Your task to perform on an android device: Find coffee shops on Maps Image 0: 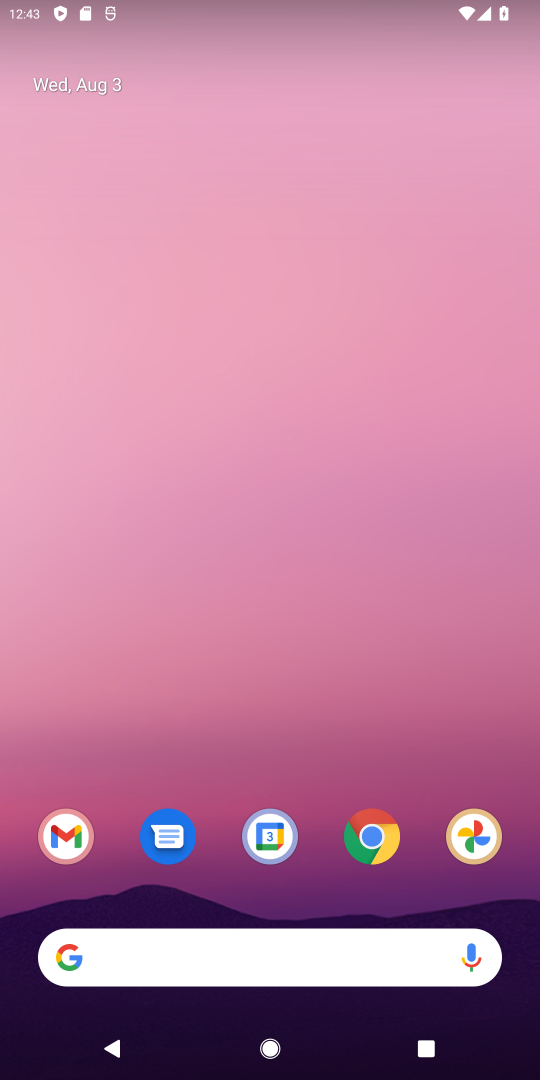
Step 0: drag from (217, 874) to (314, 226)
Your task to perform on an android device: Find coffee shops on Maps Image 1: 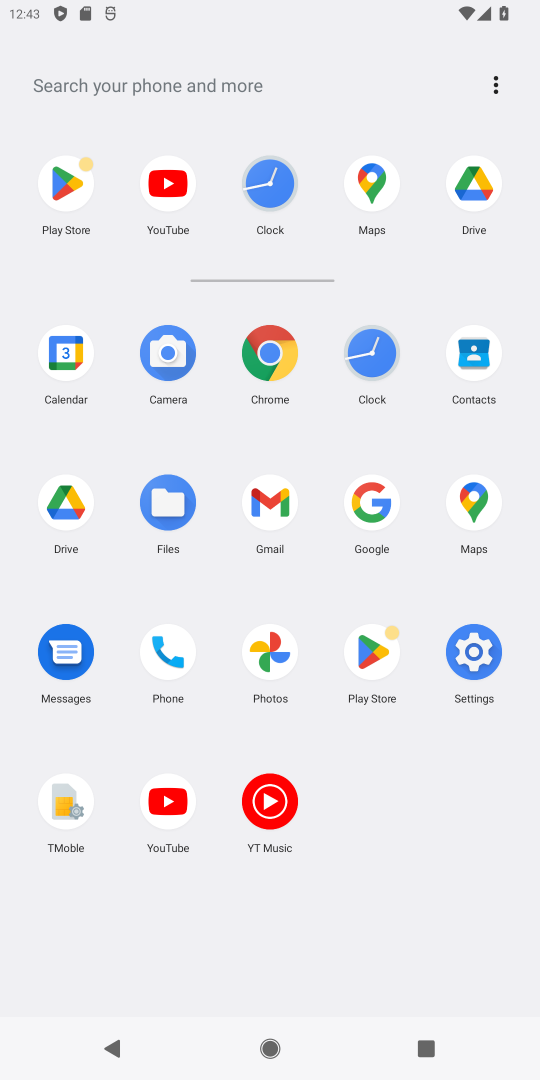
Step 1: click (468, 501)
Your task to perform on an android device: Find coffee shops on Maps Image 2: 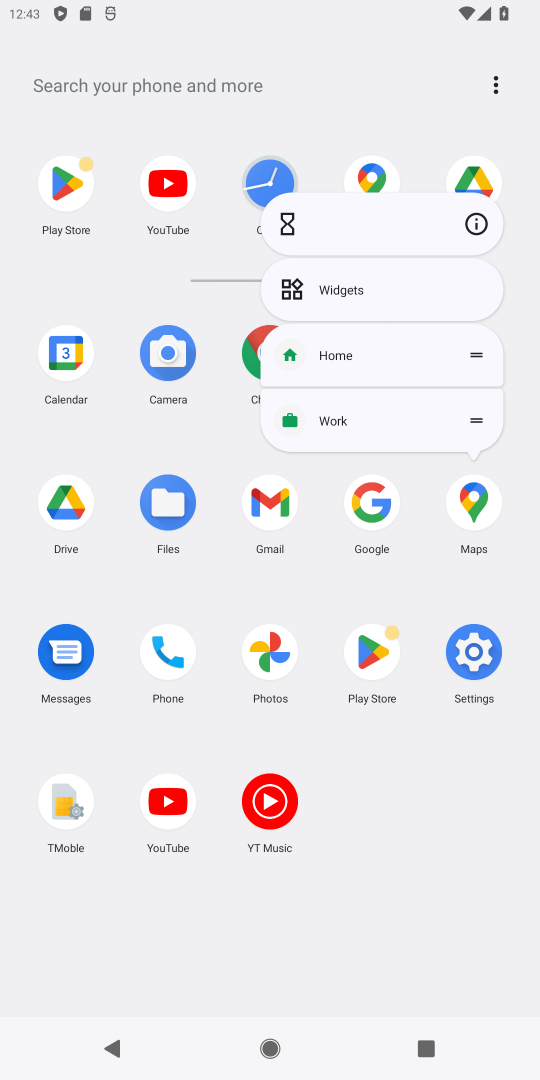
Step 2: click (470, 225)
Your task to perform on an android device: Find coffee shops on Maps Image 3: 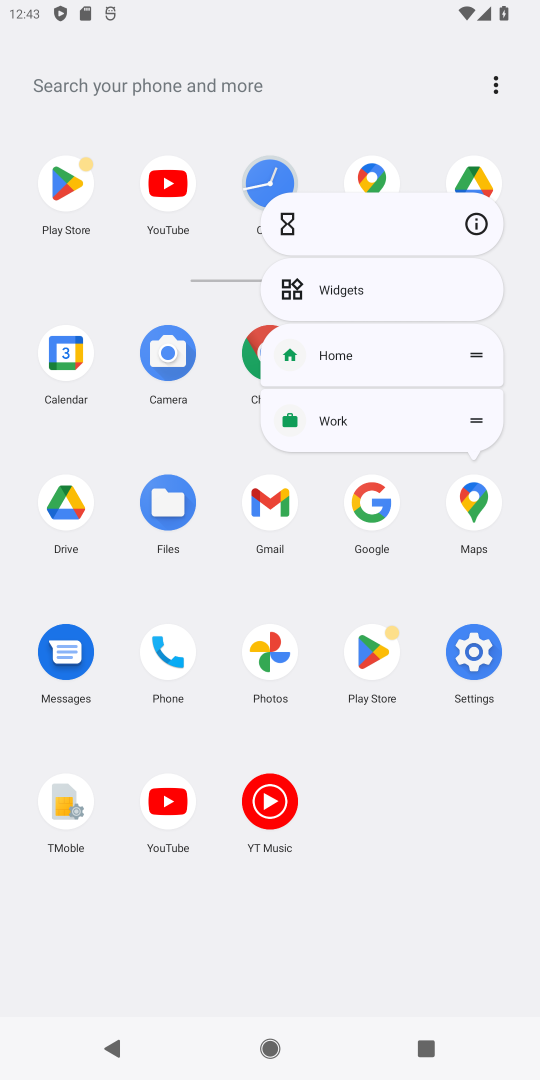
Step 3: click (470, 227)
Your task to perform on an android device: Find coffee shops on Maps Image 4: 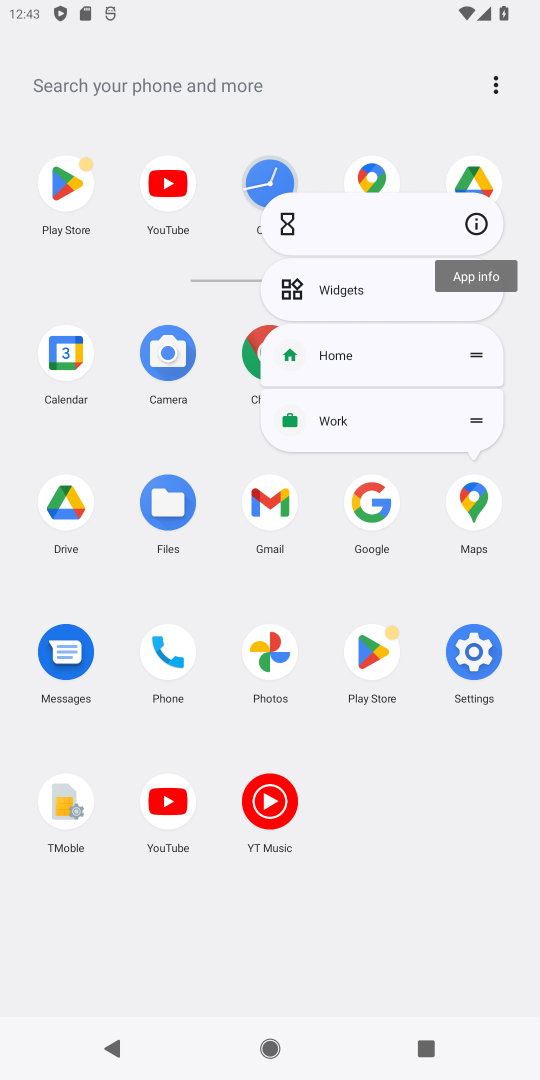
Step 4: click (474, 228)
Your task to perform on an android device: Find coffee shops on Maps Image 5: 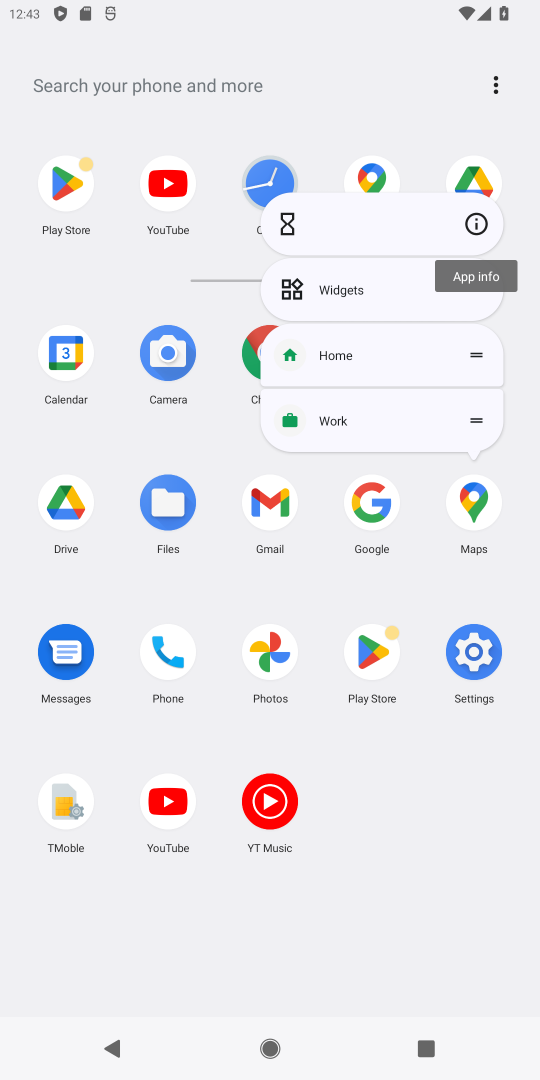
Step 5: click (476, 228)
Your task to perform on an android device: Find coffee shops on Maps Image 6: 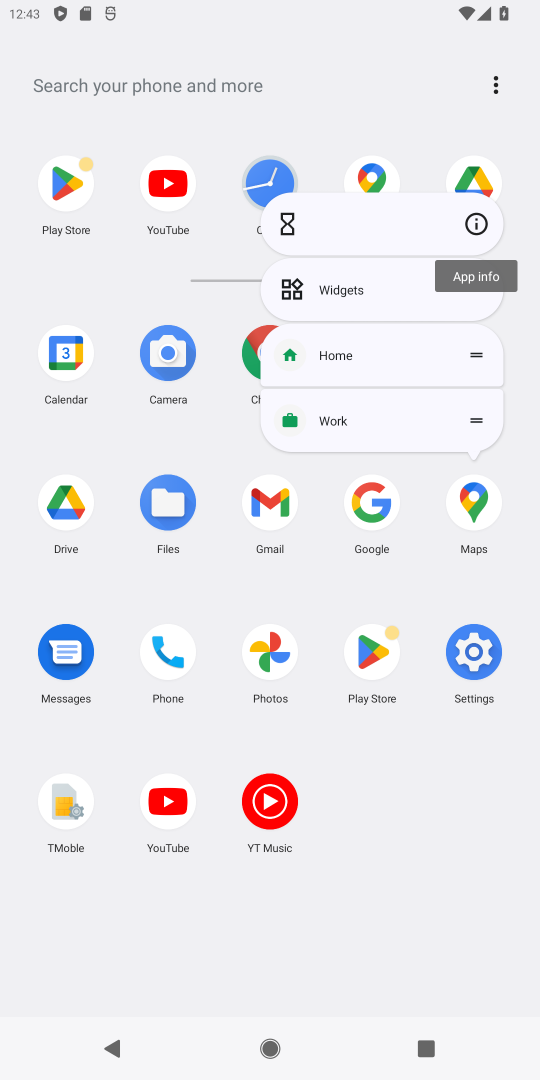
Step 6: click (474, 227)
Your task to perform on an android device: Find coffee shops on Maps Image 7: 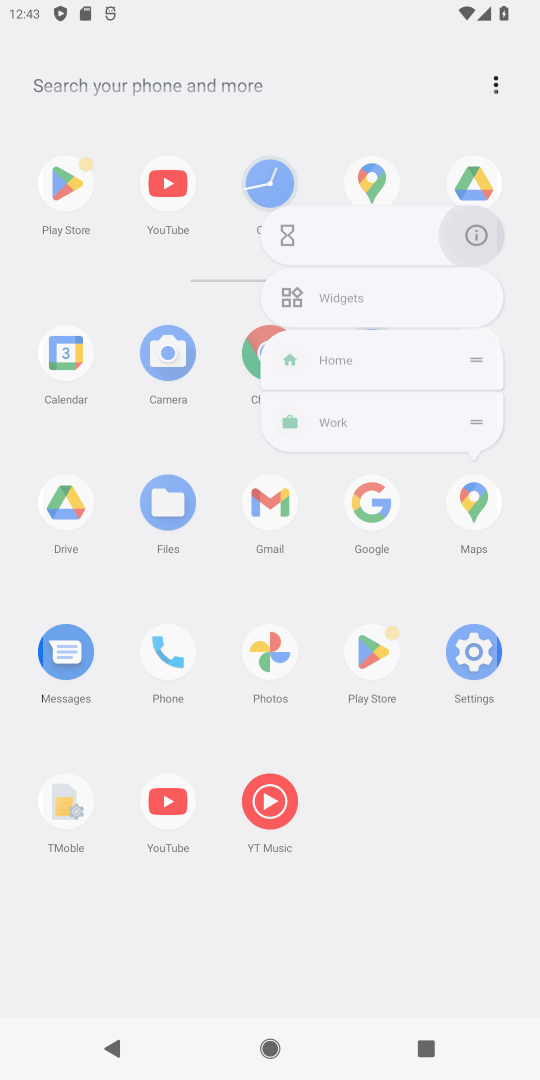
Step 7: click (476, 227)
Your task to perform on an android device: Find coffee shops on Maps Image 8: 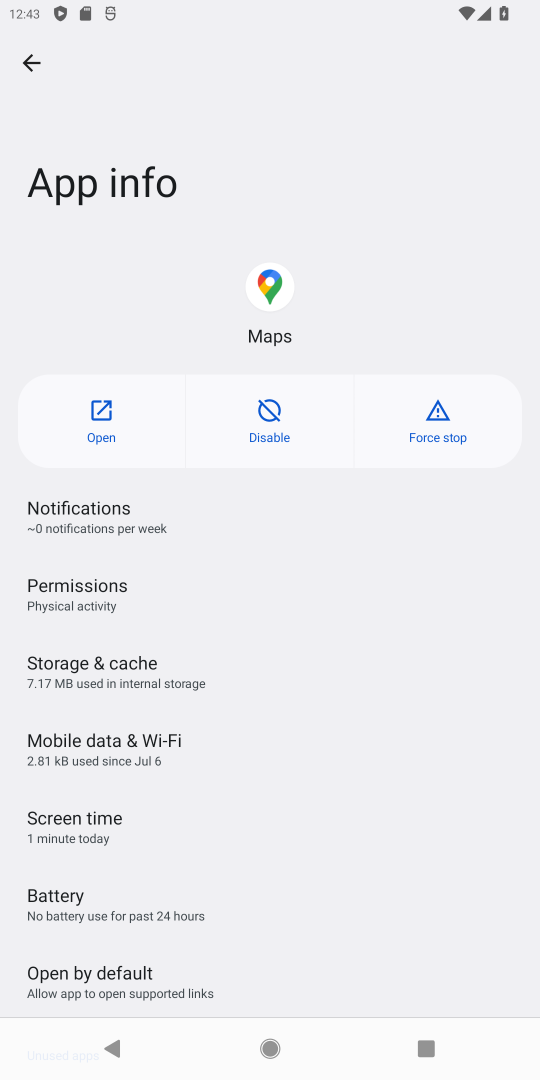
Step 8: click (104, 426)
Your task to perform on an android device: Find coffee shops on Maps Image 9: 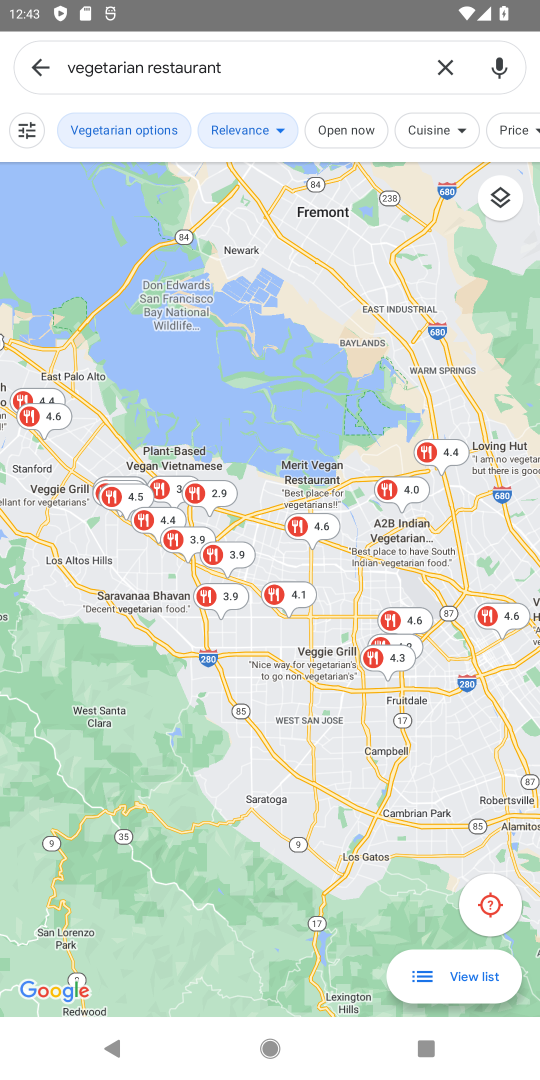
Step 9: click (446, 65)
Your task to perform on an android device: Find coffee shops on Maps Image 10: 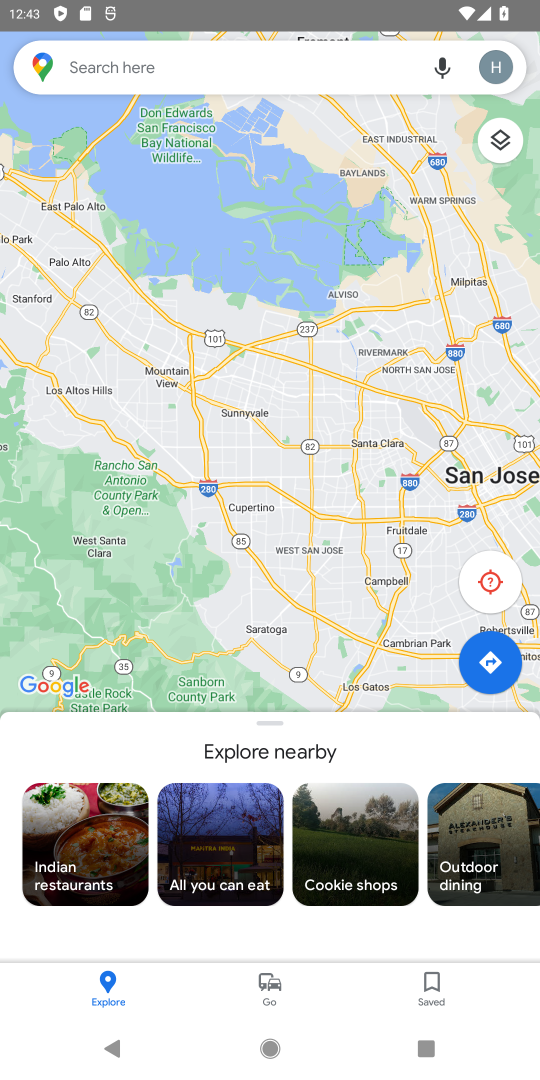
Step 10: click (172, 59)
Your task to perform on an android device: Find coffee shops on Maps Image 11: 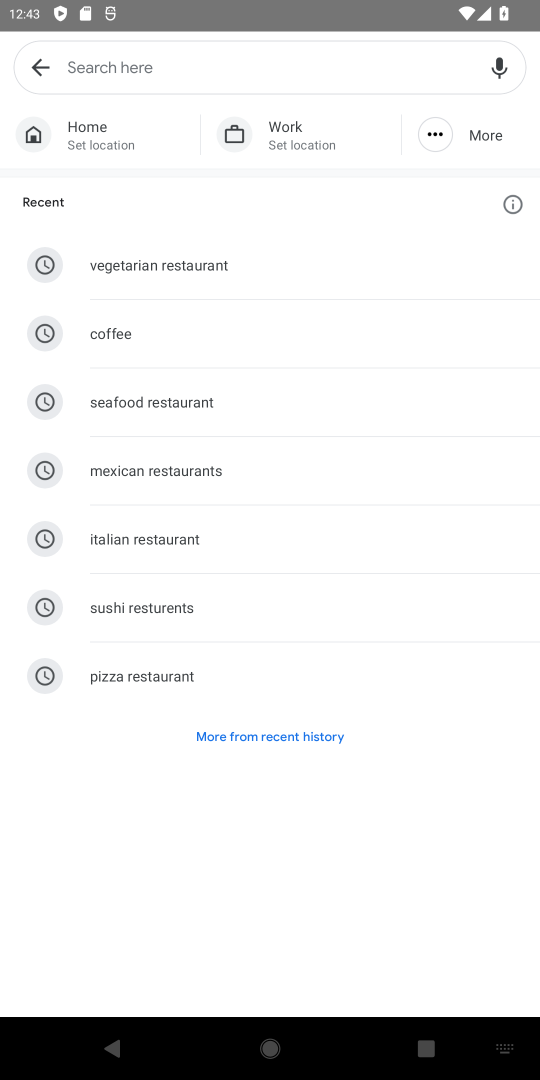
Step 11: click (111, 314)
Your task to perform on an android device: Find coffee shops on Maps Image 12: 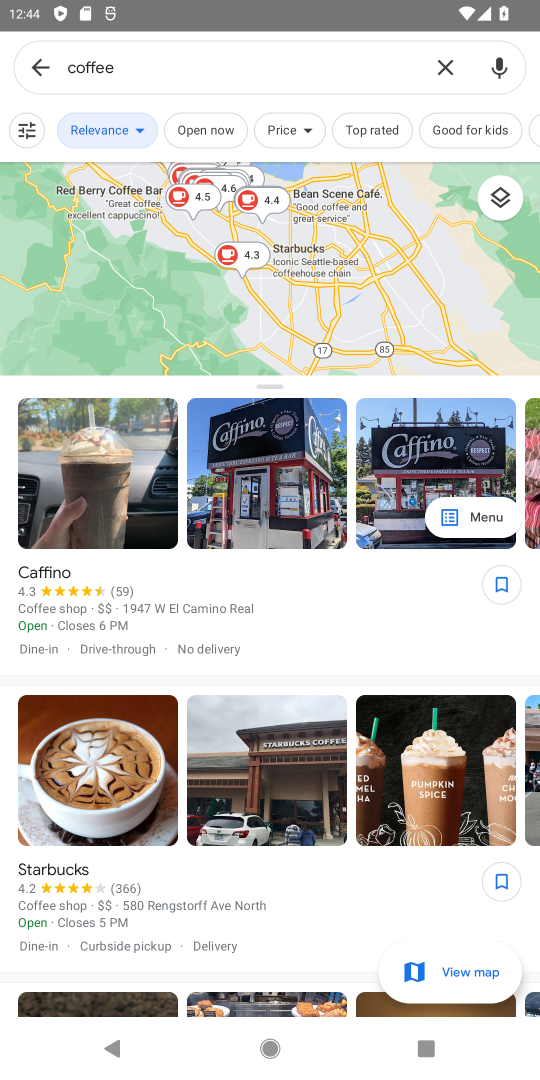
Step 12: task complete